Your task to perform on an android device: star an email in the gmail app Image 0: 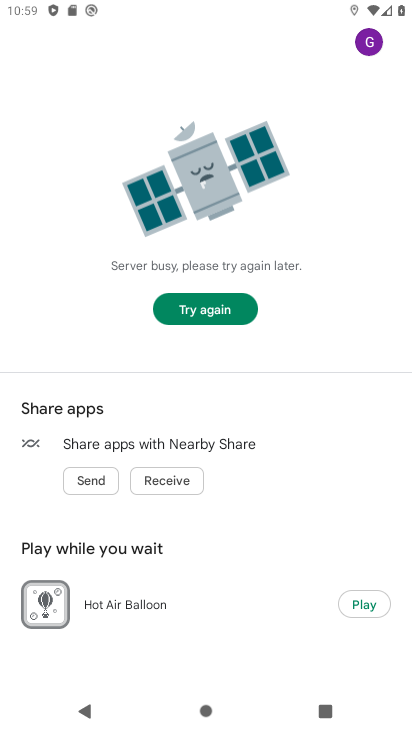
Step 0: press home button
Your task to perform on an android device: star an email in the gmail app Image 1: 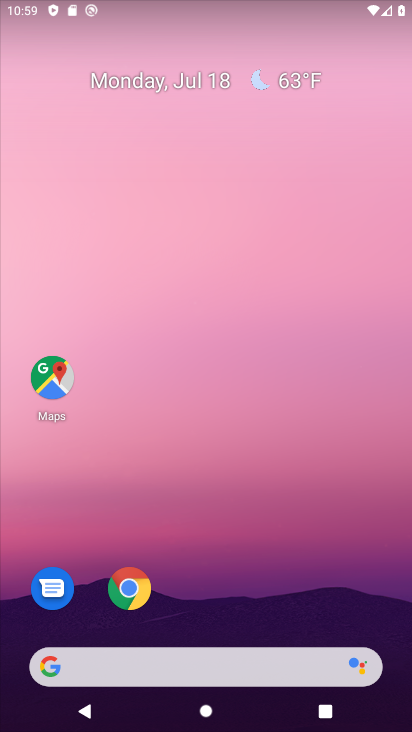
Step 1: drag from (188, 693) to (127, 60)
Your task to perform on an android device: star an email in the gmail app Image 2: 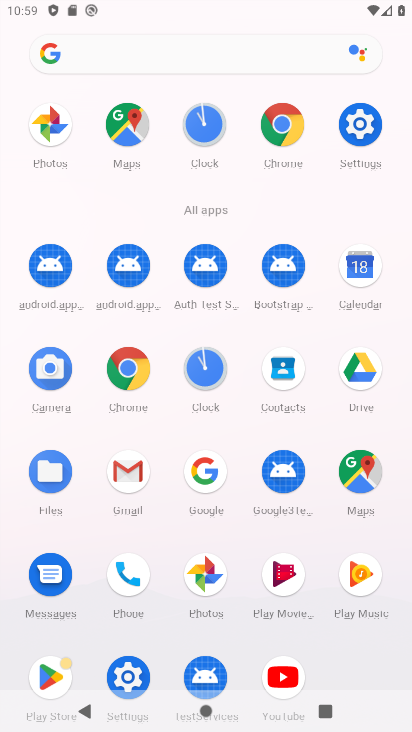
Step 2: click (122, 460)
Your task to perform on an android device: star an email in the gmail app Image 3: 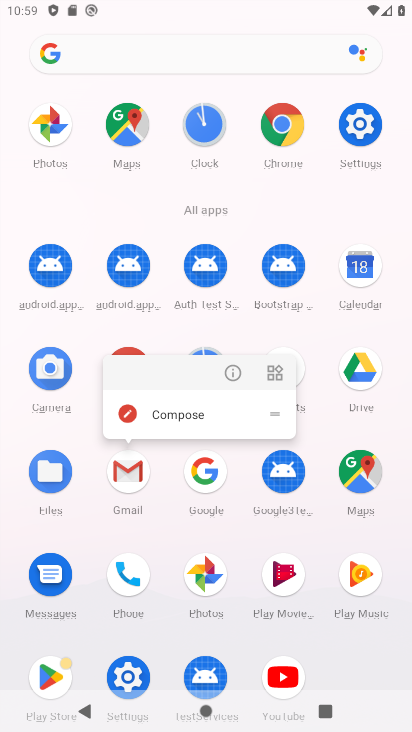
Step 3: click (133, 477)
Your task to perform on an android device: star an email in the gmail app Image 4: 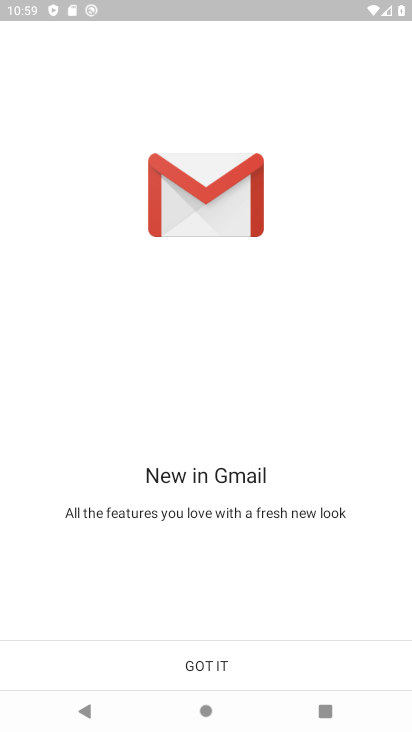
Step 4: click (201, 668)
Your task to perform on an android device: star an email in the gmail app Image 5: 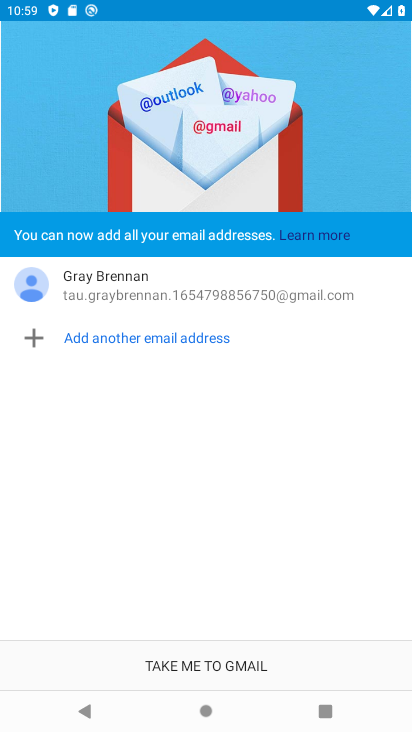
Step 5: click (174, 667)
Your task to perform on an android device: star an email in the gmail app Image 6: 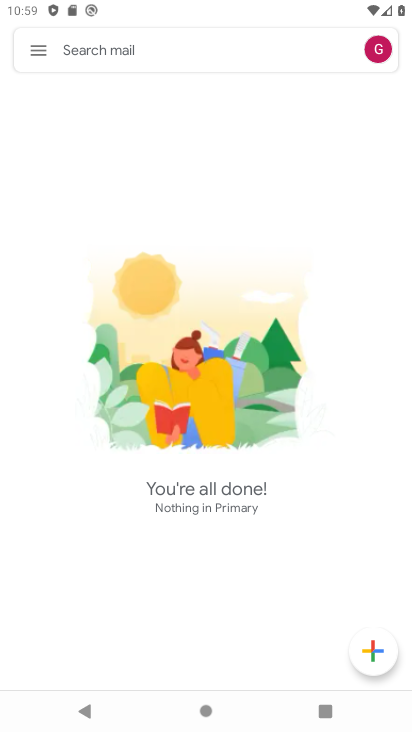
Step 6: click (43, 55)
Your task to perform on an android device: star an email in the gmail app Image 7: 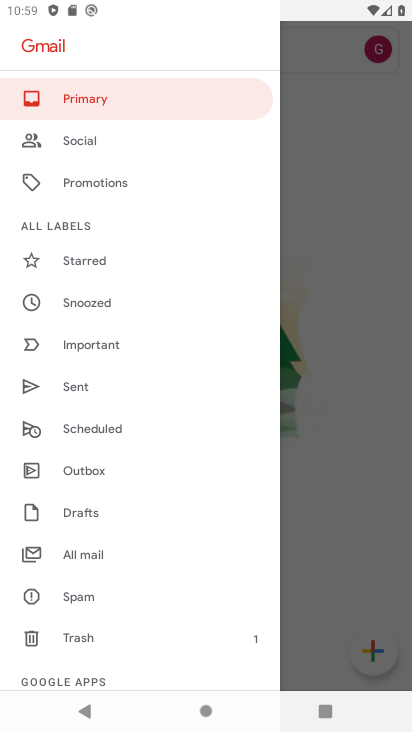
Step 7: click (73, 552)
Your task to perform on an android device: star an email in the gmail app Image 8: 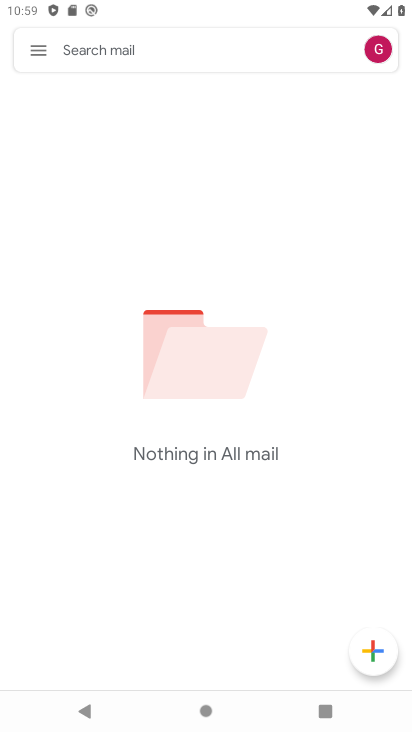
Step 8: task complete